Your task to perform on an android device: open chrome privacy settings Image 0: 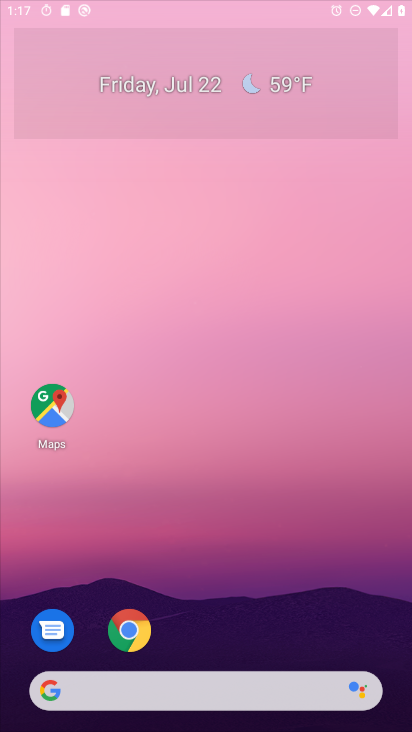
Step 0: press home button
Your task to perform on an android device: open chrome privacy settings Image 1: 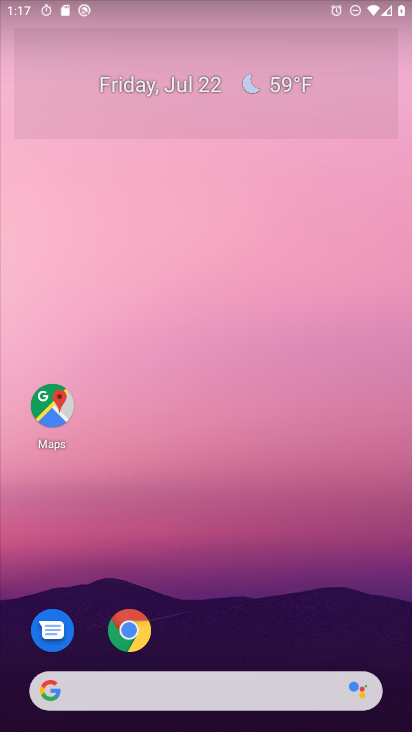
Step 1: drag from (271, 631) to (270, 80)
Your task to perform on an android device: open chrome privacy settings Image 2: 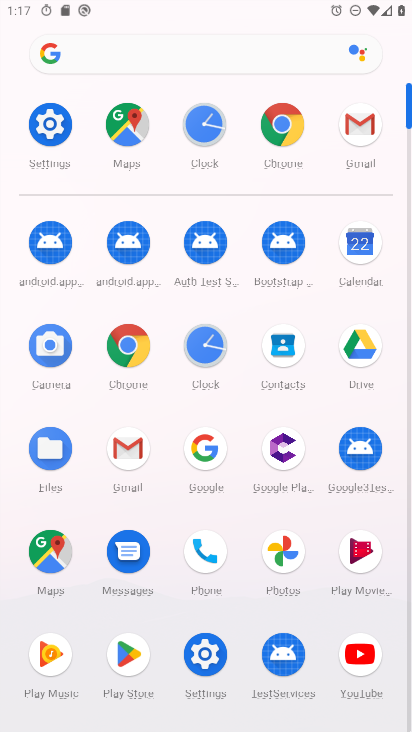
Step 2: click (284, 127)
Your task to perform on an android device: open chrome privacy settings Image 3: 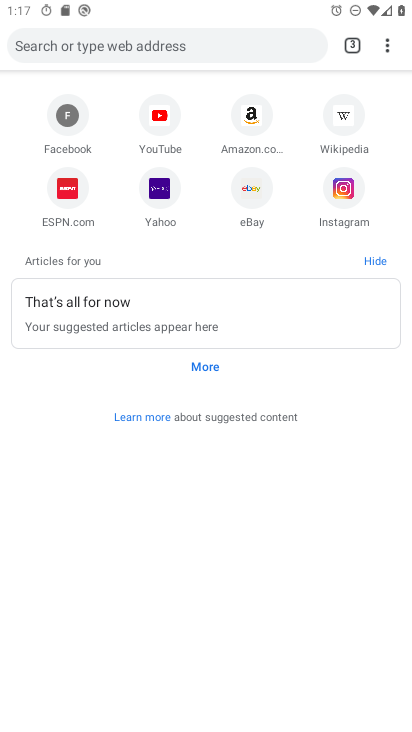
Step 3: drag from (388, 46) to (231, 435)
Your task to perform on an android device: open chrome privacy settings Image 4: 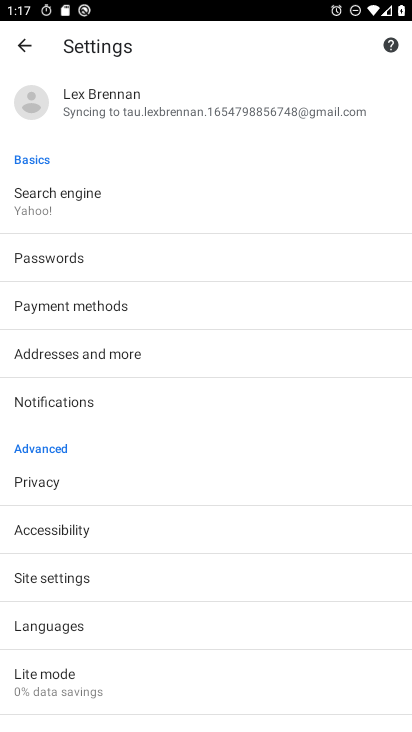
Step 4: click (28, 485)
Your task to perform on an android device: open chrome privacy settings Image 5: 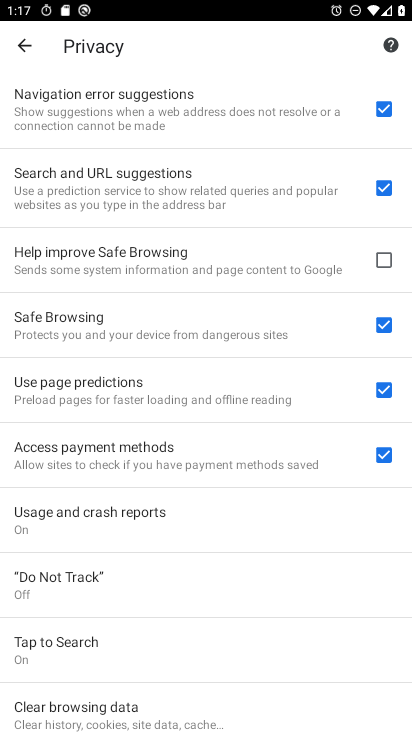
Step 5: task complete